Your task to perform on an android device: set an alarm Image 0: 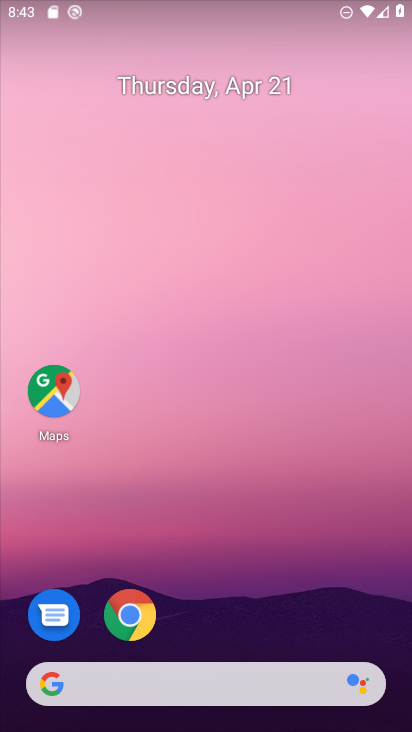
Step 0: drag from (264, 521) to (340, 46)
Your task to perform on an android device: set an alarm Image 1: 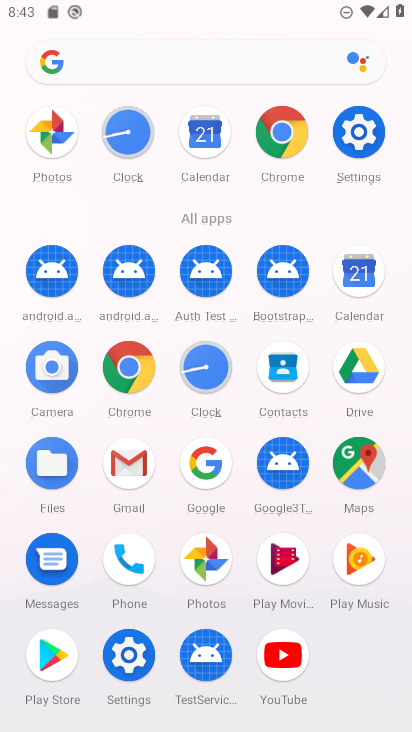
Step 1: click (120, 122)
Your task to perform on an android device: set an alarm Image 2: 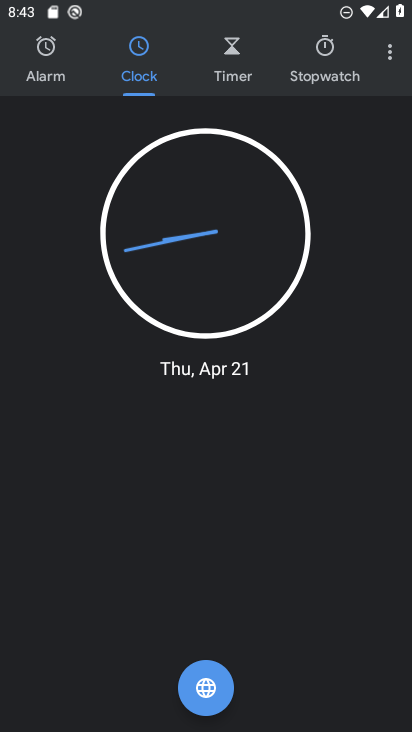
Step 2: click (37, 77)
Your task to perform on an android device: set an alarm Image 3: 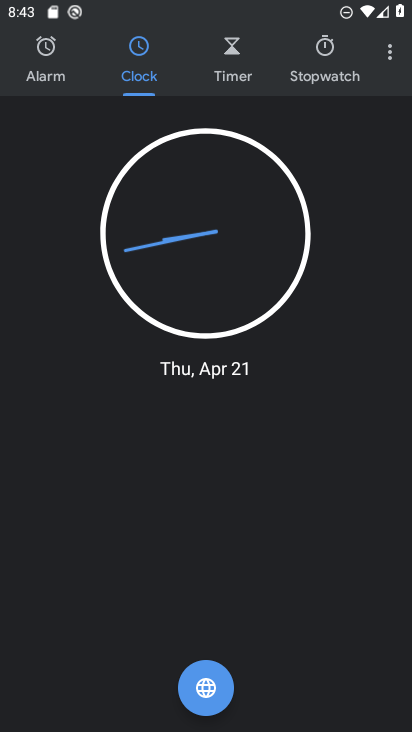
Step 3: click (52, 68)
Your task to perform on an android device: set an alarm Image 4: 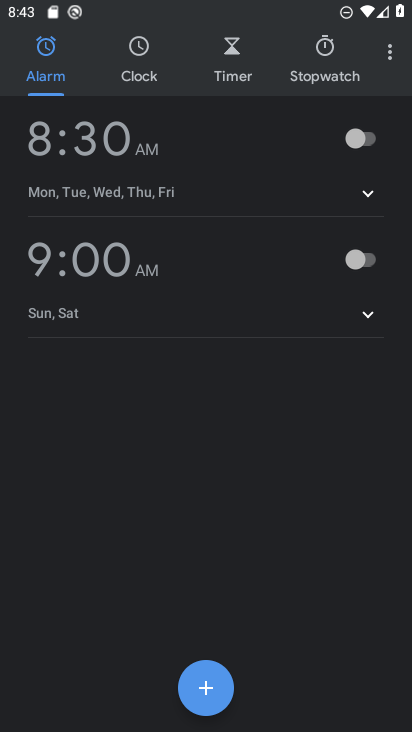
Step 4: click (364, 139)
Your task to perform on an android device: set an alarm Image 5: 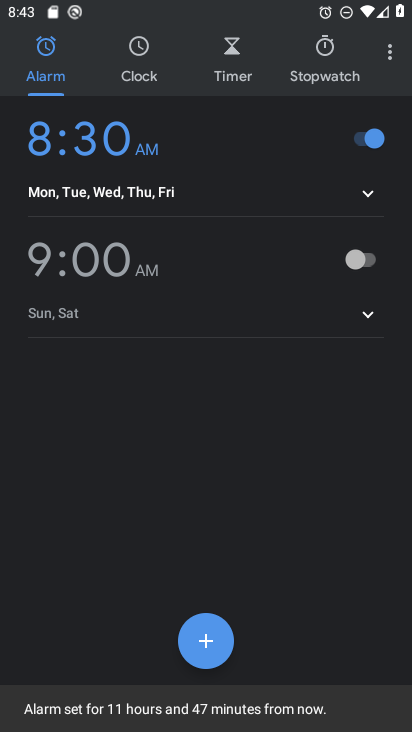
Step 5: task complete